Your task to perform on an android device: Show me the alarms in the clock app Image 0: 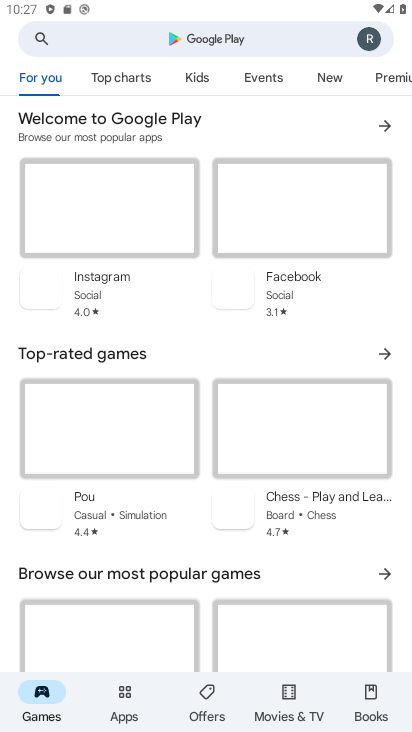
Step 0: press home button
Your task to perform on an android device: Show me the alarms in the clock app Image 1: 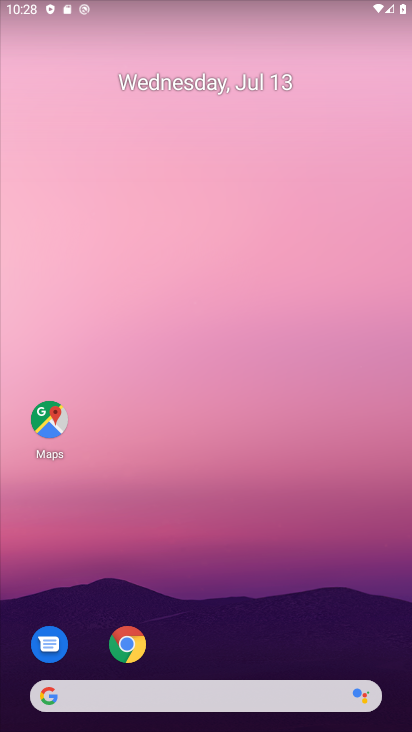
Step 1: drag from (221, 577) to (167, 51)
Your task to perform on an android device: Show me the alarms in the clock app Image 2: 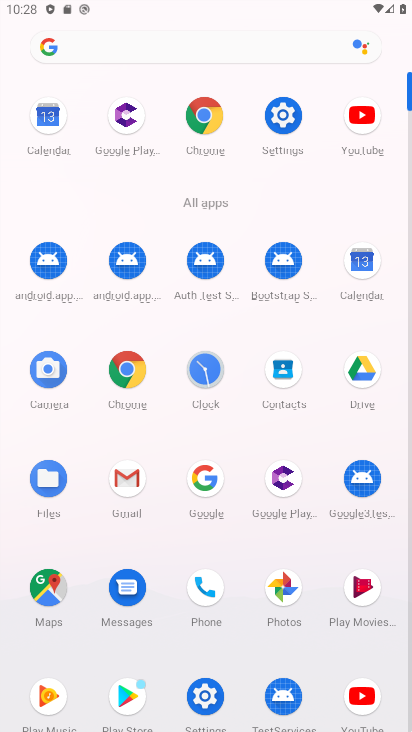
Step 2: click (204, 365)
Your task to perform on an android device: Show me the alarms in the clock app Image 3: 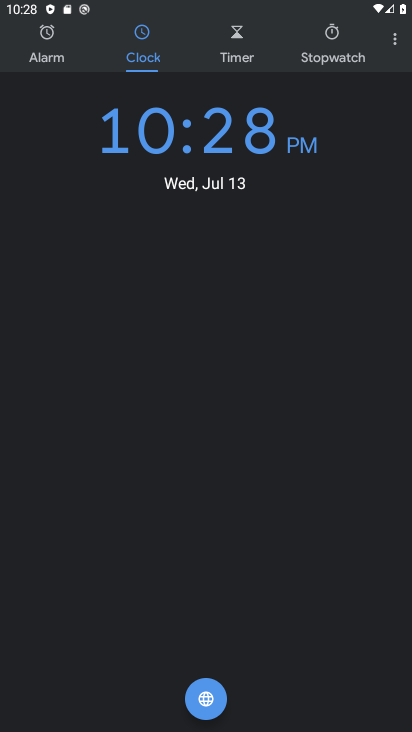
Step 3: click (50, 46)
Your task to perform on an android device: Show me the alarms in the clock app Image 4: 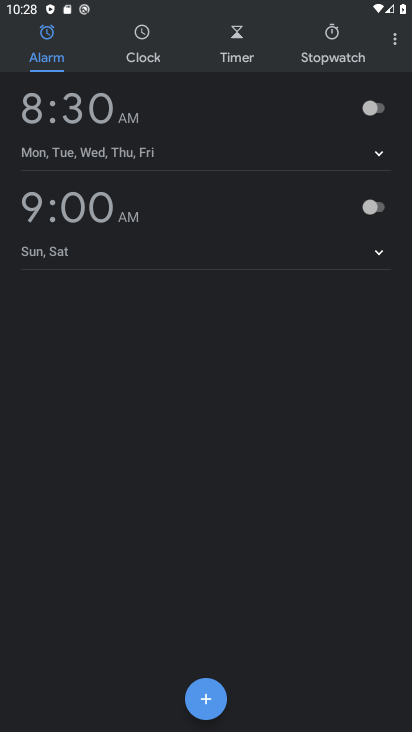
Step 4: task complete